Your task to perform on an android device: Open Chrome and go to the settings page Image 0: 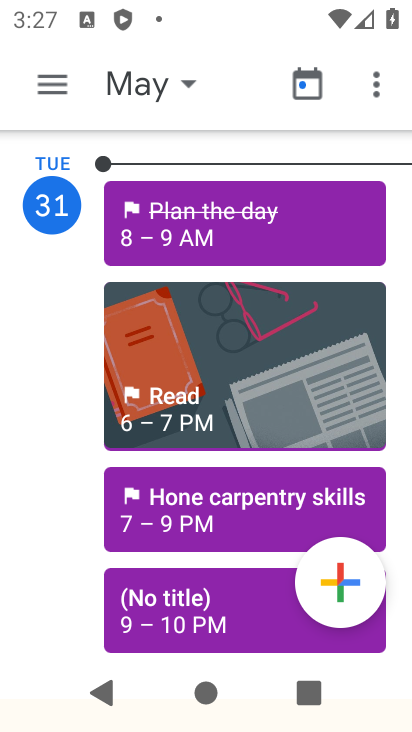
Step 0: task complete